Your task to perform on an android device: turn on priority inbox in the gmail app Image 0: 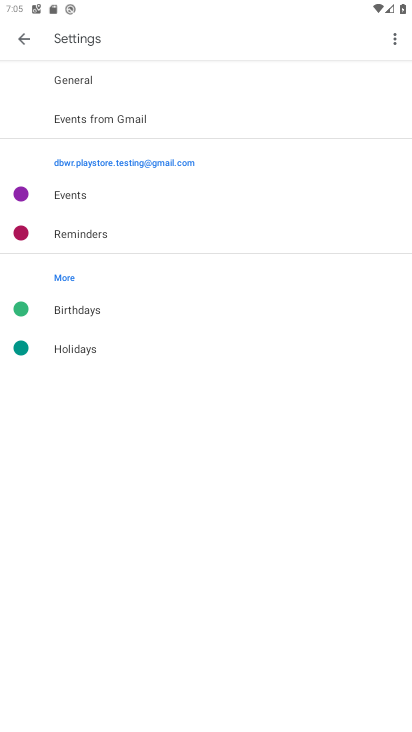
Step 0: press home button
Your task to perform on an android device: turn on priority inbox in the gmail app Image 1: 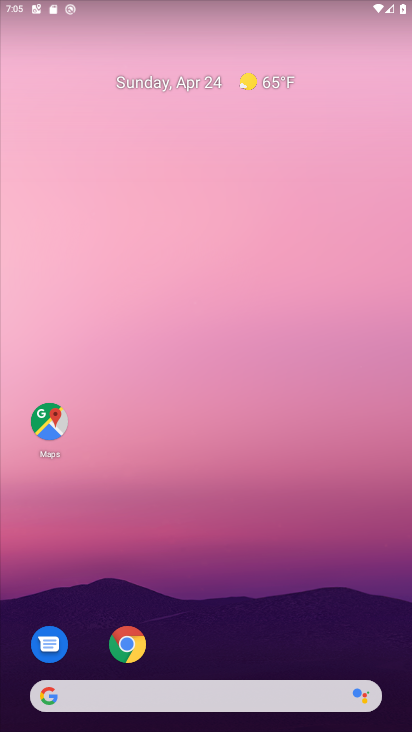
Step 1: drag from (211, 653) to (236, 123)
Your task to perform on an android device: turn on priority inbox in the gmail app Image 2: 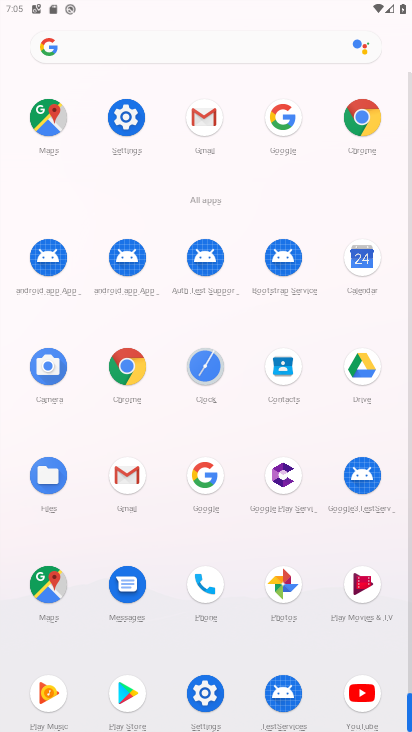
Step 2: click (129, 465)
Your task to perform on an android device: turn on priority inbox in the gmail app Image 3: 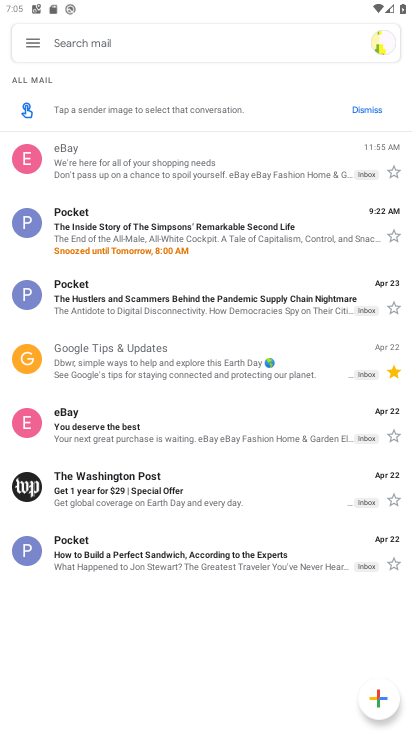
Step 3: click (40, 43)
Your task to perform on an android device: turn on priority inbox in the gmail app Image 4: 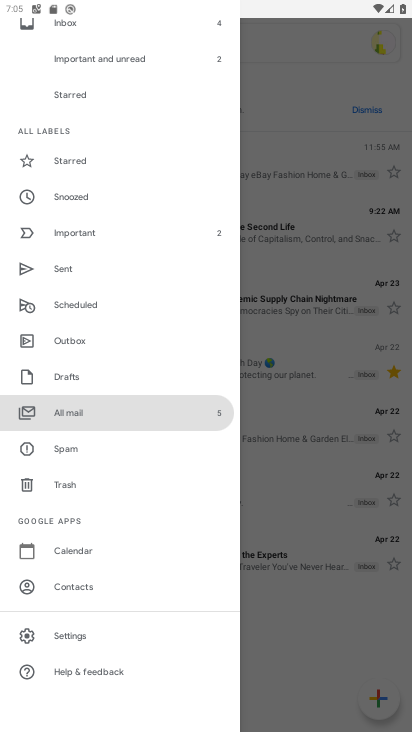
Step 4: click (87, 630)
Your task to perform on an android device: turn on priority inbox in the gmail app Image 5: 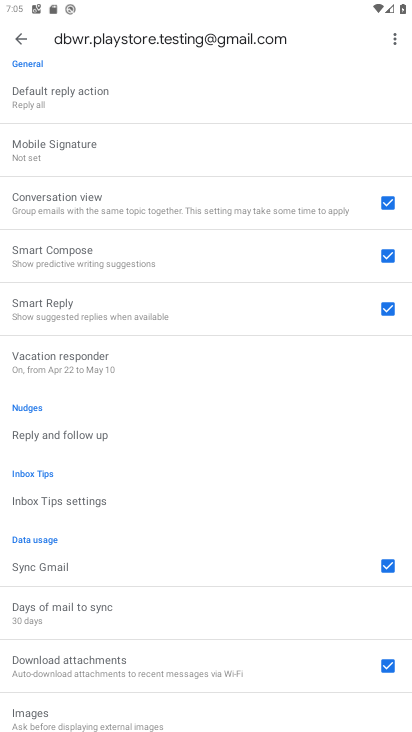
Step 5: drag from (107, 155) to (116, 697)
Your task to perform on an android device: turn on priority inbox in the gmail app Image 6: 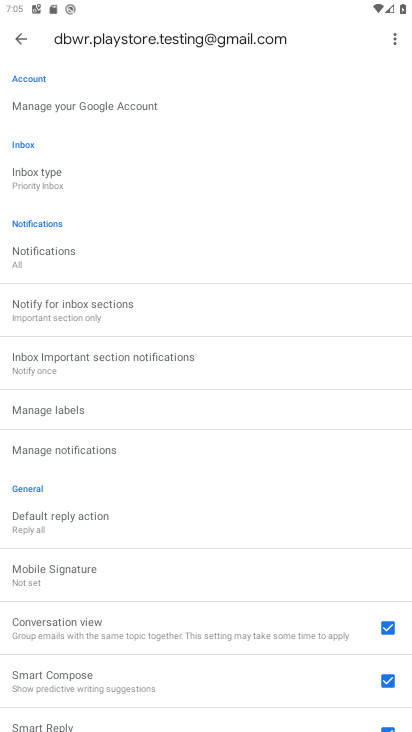
Step 6: click (71, 175)
Your task to perform on an android device: turn on priority inbox in the gmail app Image 7: 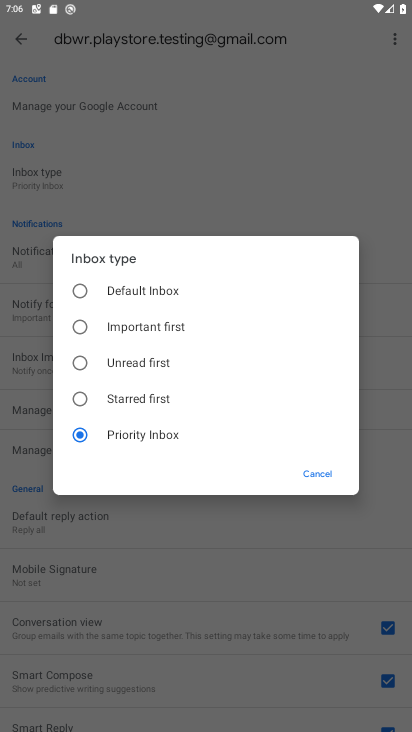
Step 7: click (119, 440)
Your task to perform on an android device: turn on priority inbox in the gmail app Image 8: 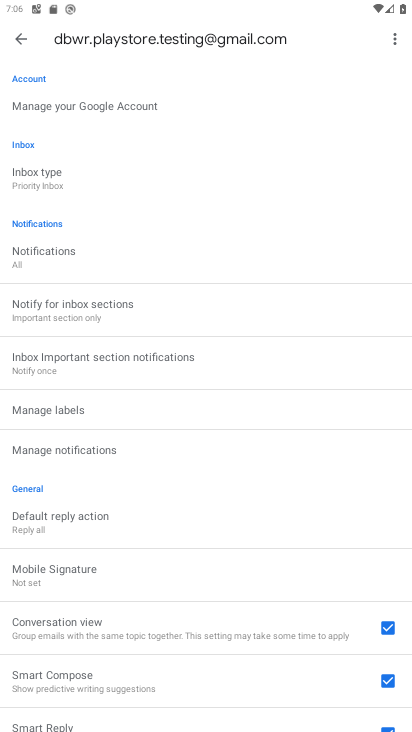
Step 8: task complete